Your task to perform on an android device: Open ESPN.com Image 0: 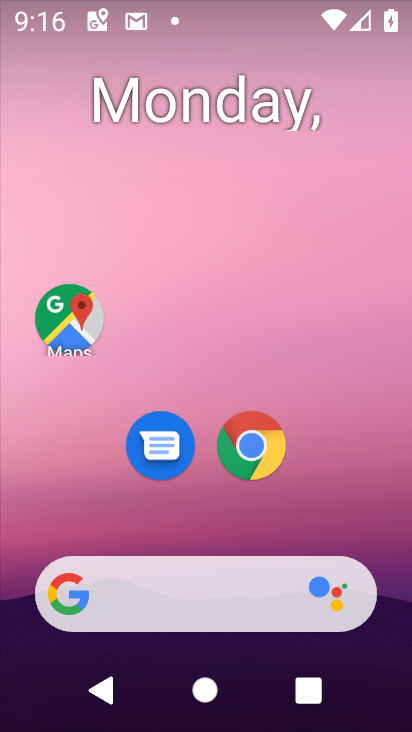
Step 0: click (198, 598)
Your task to perform on an android device: Open ESPN.com Image 1: 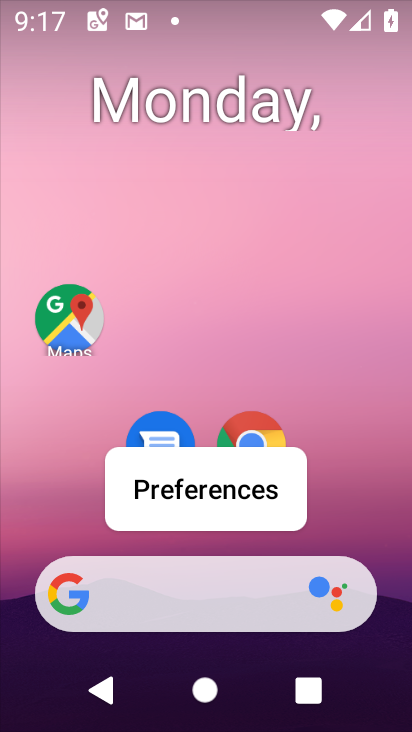
Step 1: type "espncom"
Your task to perform on an android device: Open ESPN.com Image 2: 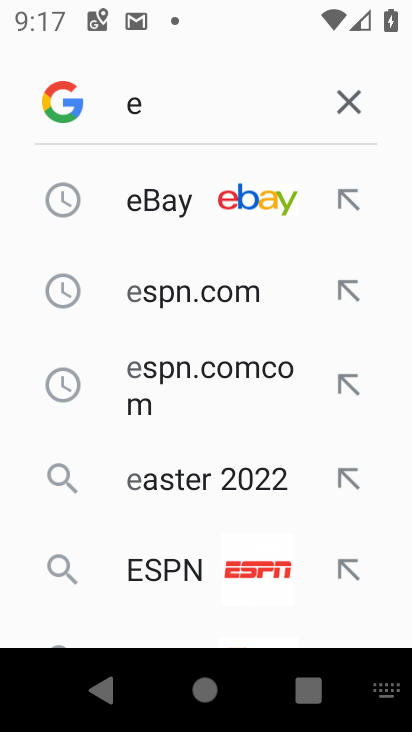
Step 2: click (296, 198)
Your task to perform on an android device: Open ESPN.com Image 3: 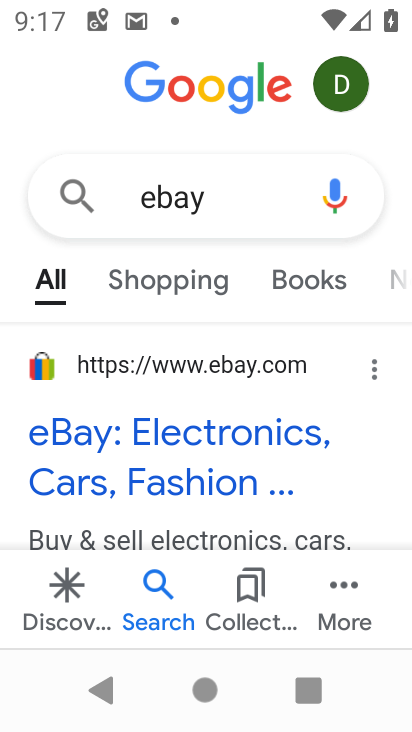
Step 3: click (209, 365)
Your task to perform on an android device: Open ESPN.com Image 4: 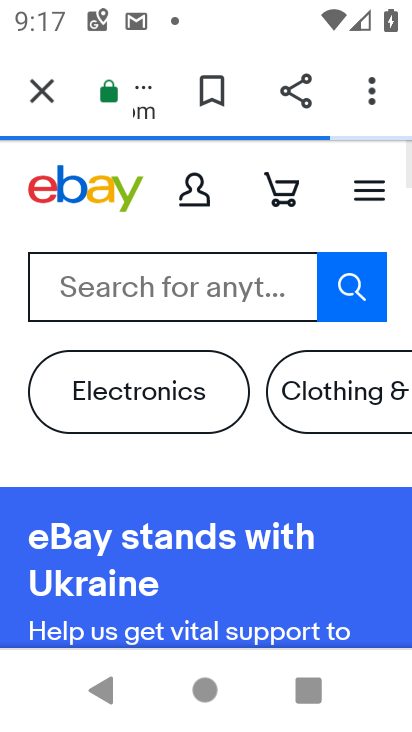
Step 4: task complete